Your task to perform on an android device: make emails show in primary in the gmail app Image 0: 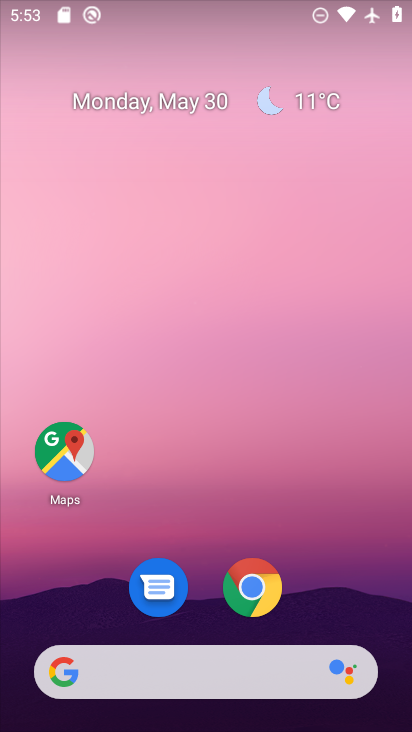
Step 0: drag from (358, 602) to (184, 16)
Your task to perform on an android device: make emails show in primary in the gmail app Image 1: 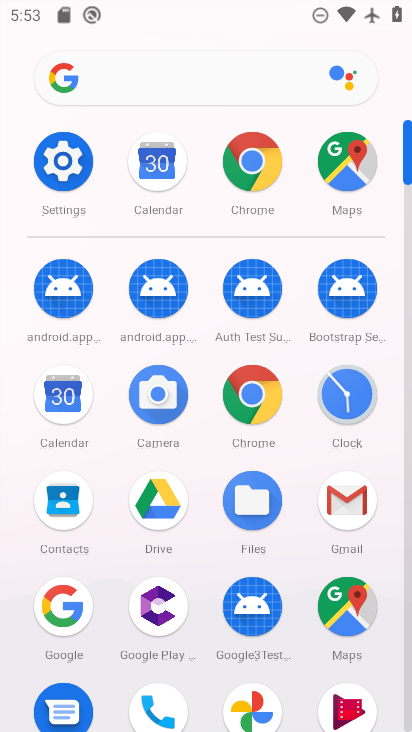
Step 1: drag from (7, 585) to (11, 195)
Your task to perform on an android device: make emails show in primary in the gmail app Image 2: 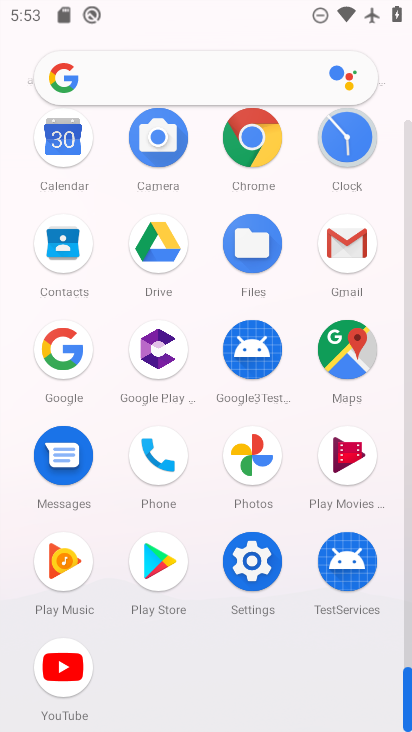
Step 2: click (344, 233)
Your task to perform on an android device: make emails show in primary in the gmail app Image 3: 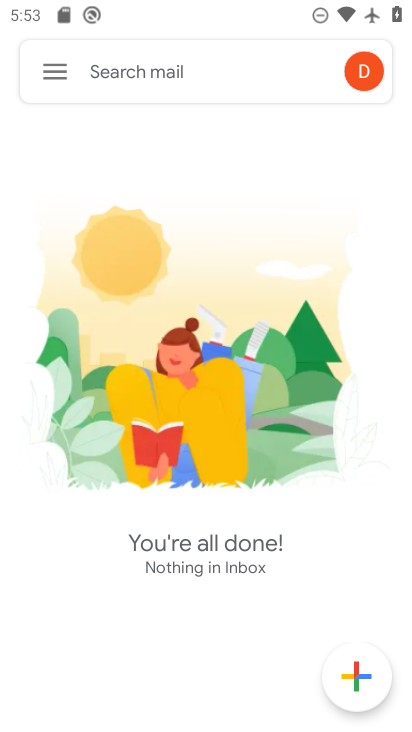
Step 3: click (47, 59)
Your task to perform on an android device: make emails show in primary in the gmail app Image 4: 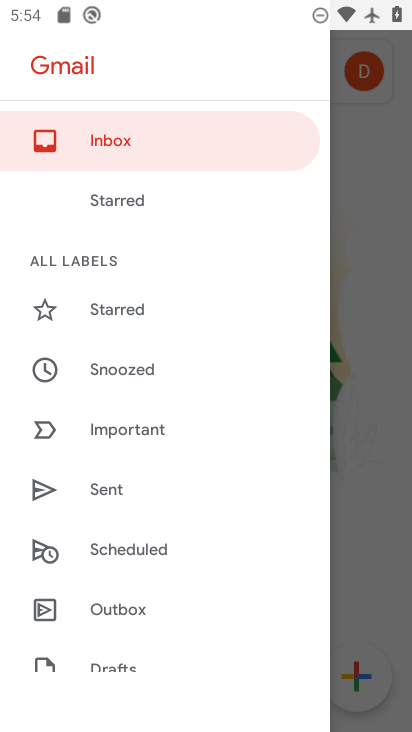
Step 4: drag from (212, 621) to (197, 176)
Your task to perform on an android device: make emails show in primary in the gmail app Image 5: 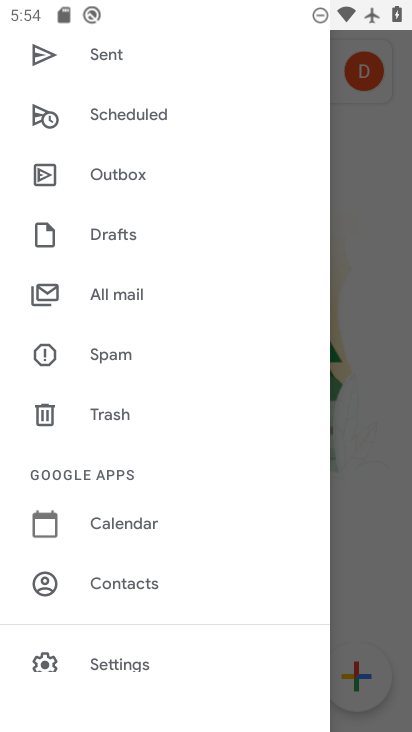
Step 5: click (127, 655)
Your task to perform on an android device: make emails show in primary in the gmail app Image 6: 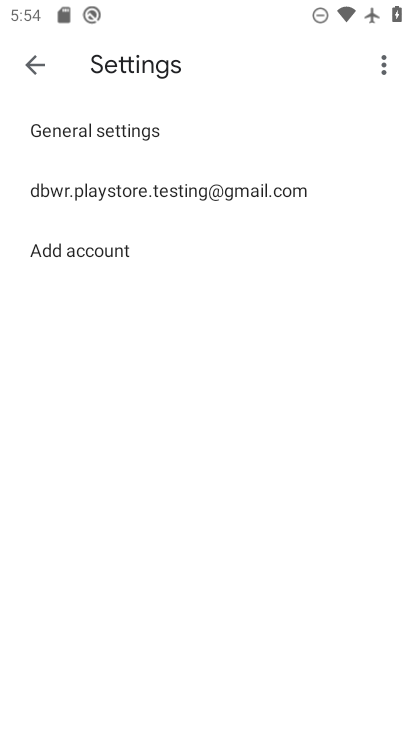
Step 6: click (153, 187)
Your task to perform on an android device: make emails show in primary in the gmail app Image 7: 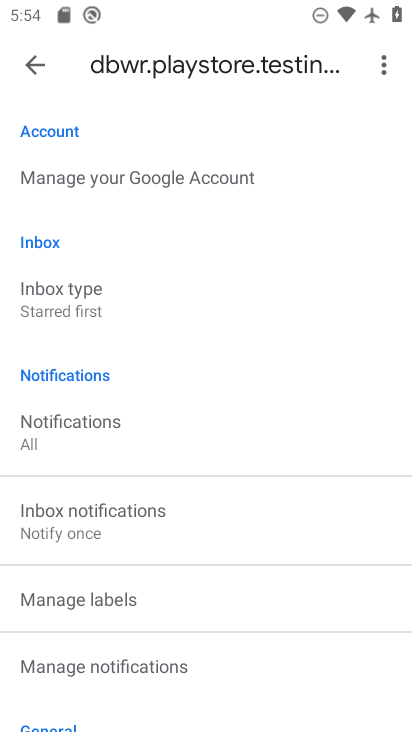
Step 7: click (113, 281)
Your task to perform on an android device: make emails show in primary in the gmail app Image 8: 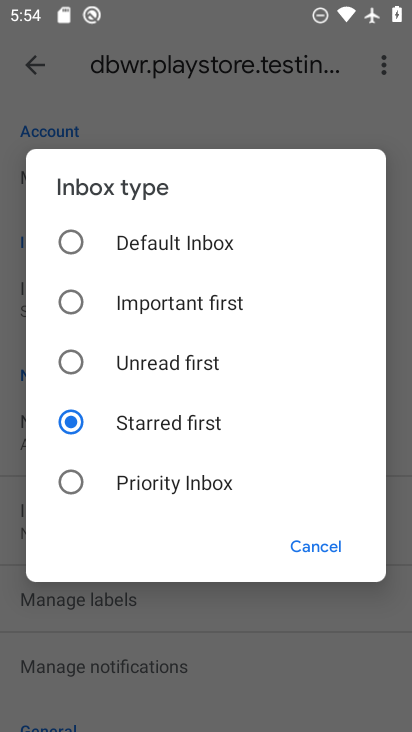
Step 8: click (150, 241)
Your task to perform on an android device: make emails show in primary in the gmail app Image 9: 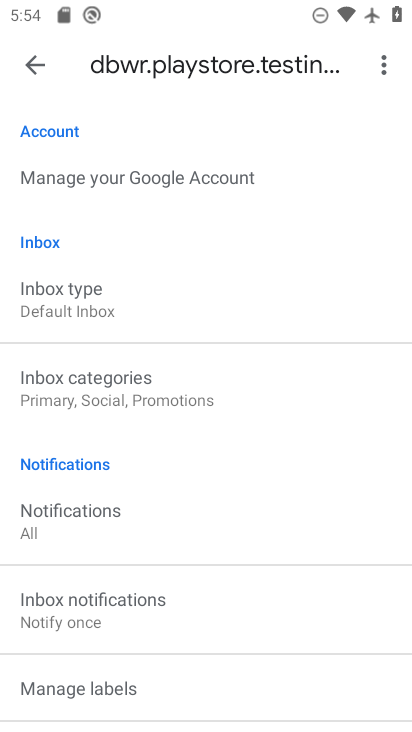
Step 9: click (107, 375)
Your task to perform on an android device: make emails show in primary in the gmail app Image 10: 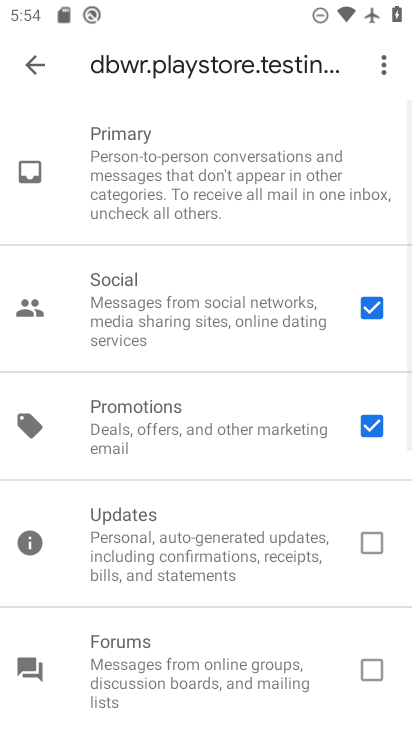
Step 10: click (372, 417)
Your task to perform on an android device: make emails show in primary in the gmail app Image 11: 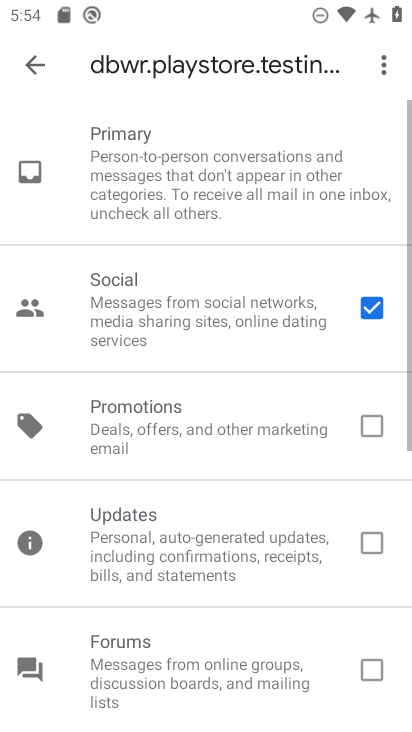
Step 11: click (371, 300)
Your task to perform on an android device: make emails show in primary in the gmail app Image 12: 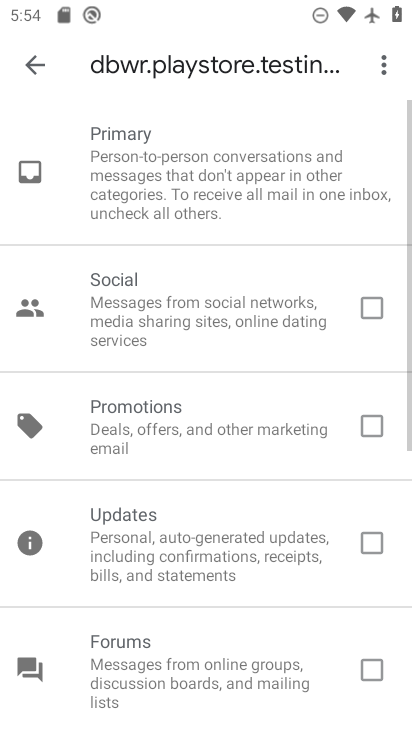
Step 12: click (26, 41)
Your task to perform on an android device: make emails show in primary in the gmail app Image 13: 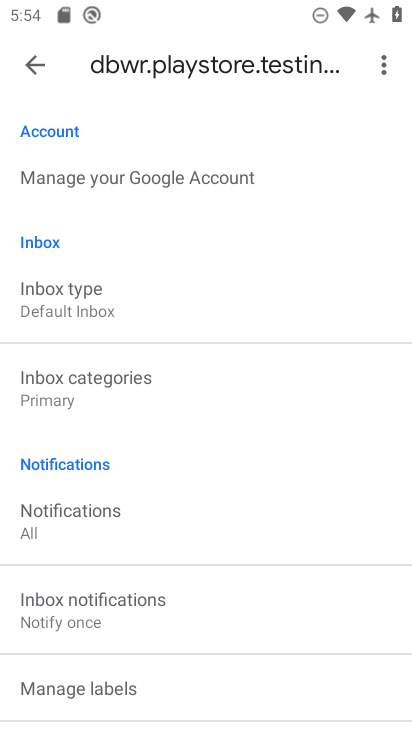
Step 13: task complete